Your task to perform on an android device: turn off notifications in google photos Image 0: 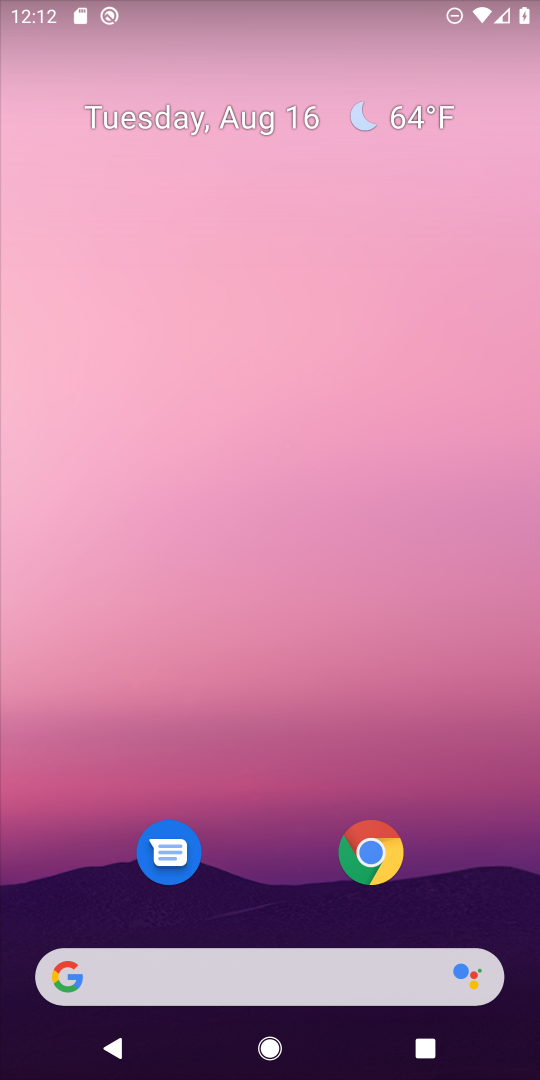
Step 0: drag from (277, 807) to (317, 177)
Your task to perform on an android device: turn off notifications in google photos Image 1: 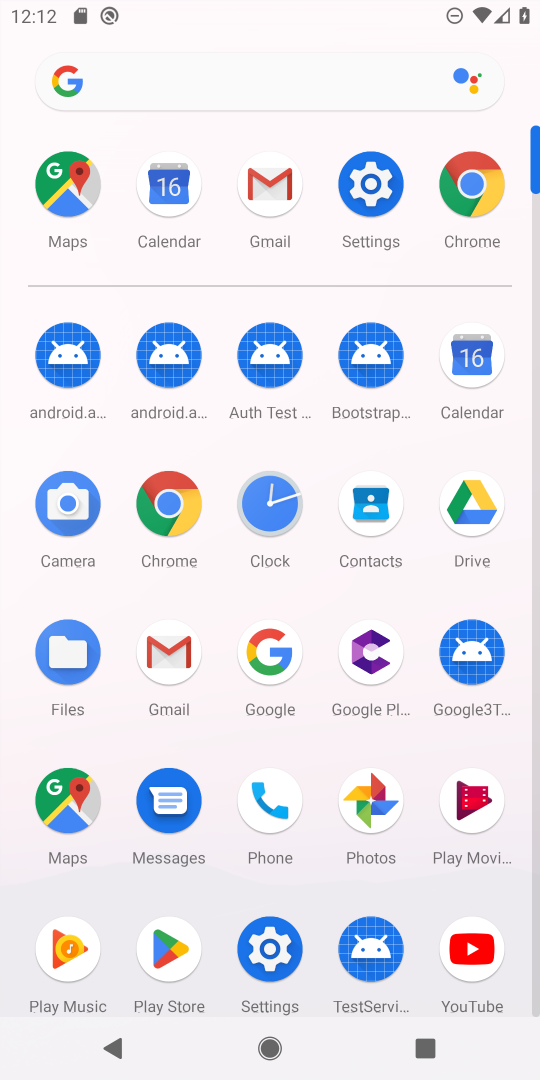
Step 1: click (369, 805)
Your task to perform on an android device: turn off notifications in google photos Image 2: 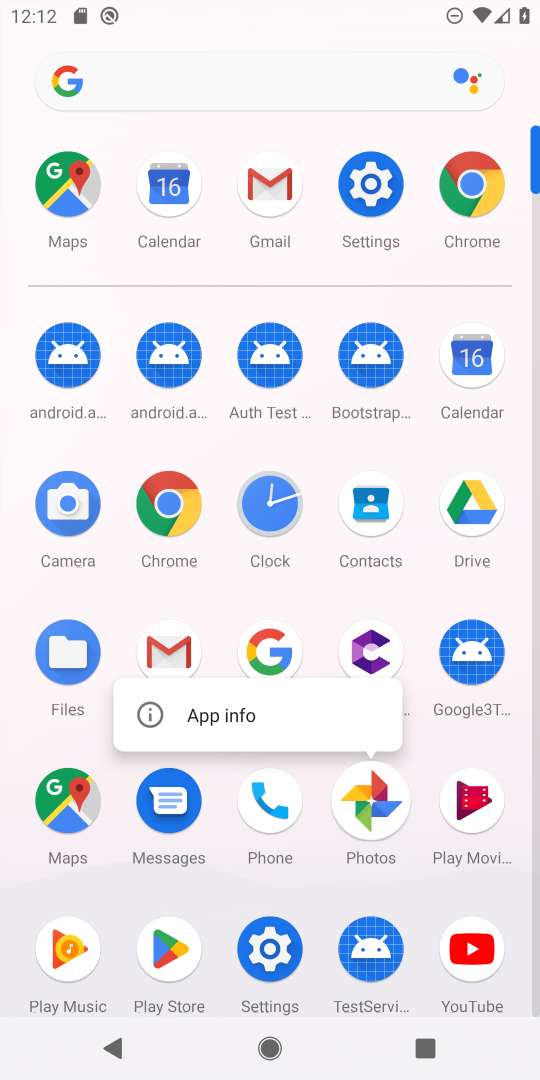
Step 2: click (134, 712)
Your task to perform on an android device: turn off notifications in google photos Image 3: 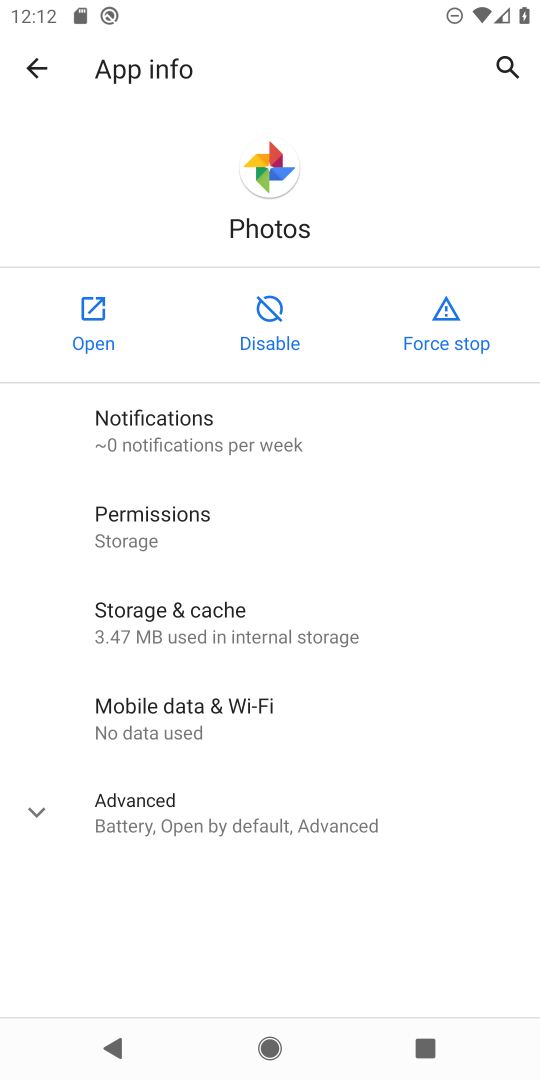
Step 3: click (189, 432)
Your task to perform on an android device: turn off notifications in google photos Image 4: 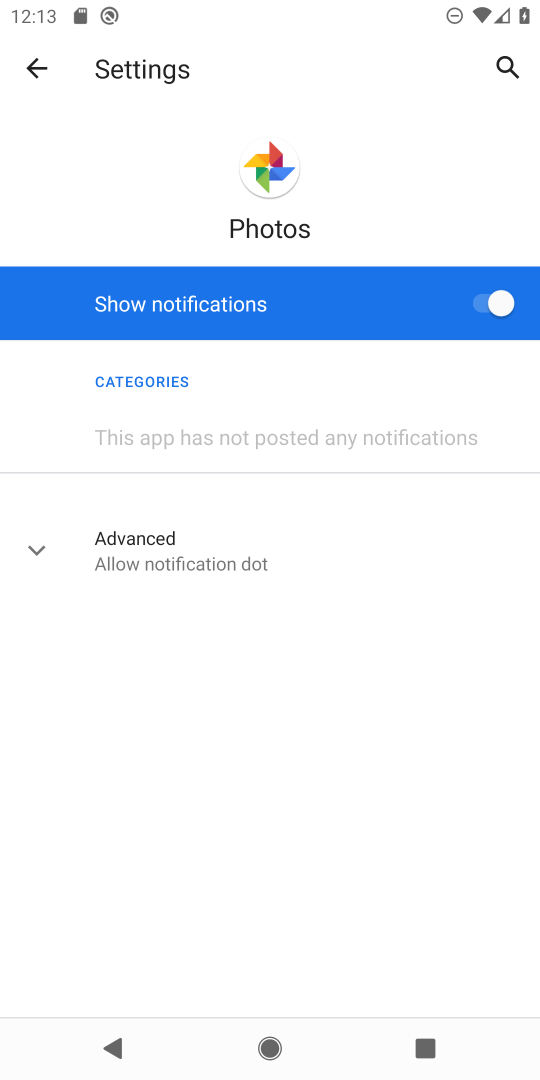
Step 4: click (493, 306)
Your task to perform on an android device: turn off notifications in google photos Image 5: 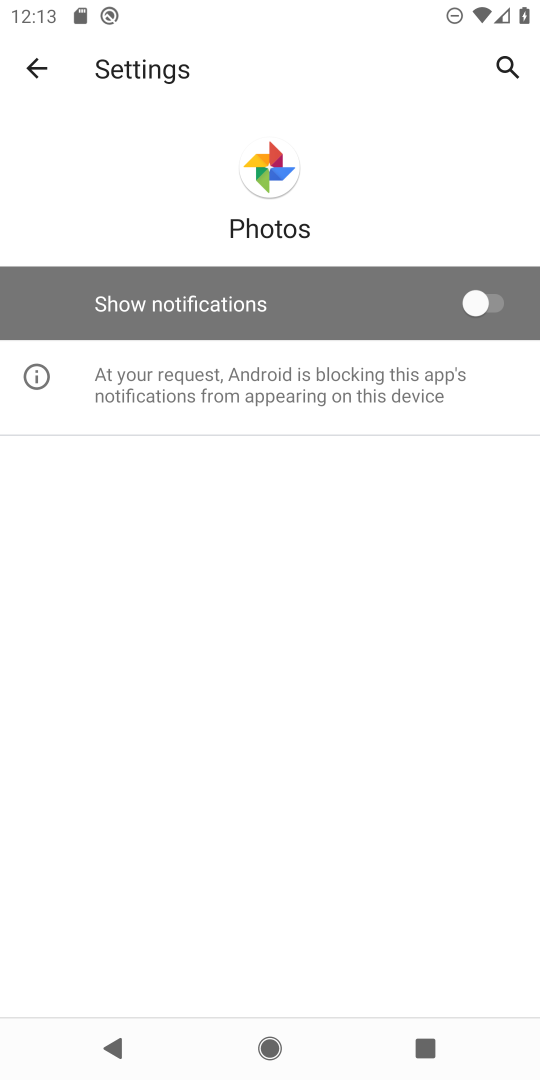
Step 5: task complete